Your task to perform on an android device: find which apps use the phone's location Image 0: 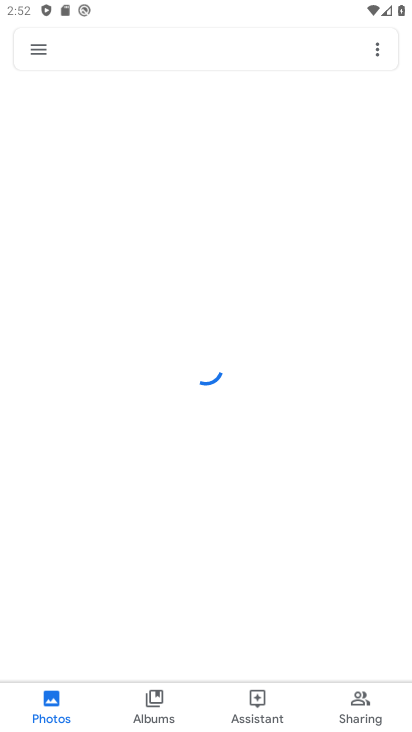
Step 0: press home button
Your task to perform on an android device: find which apps use the phone's location Image 1: 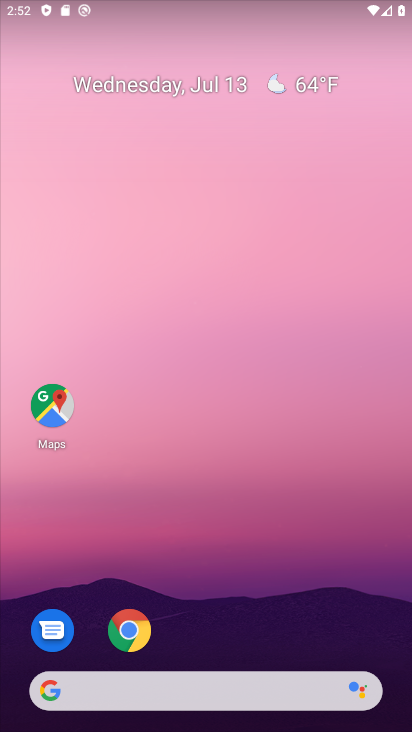
Step 1: drag from (280, 579) to (279, 201)
Your task to perform on an android device: find which apps use the phone's location Image 2: 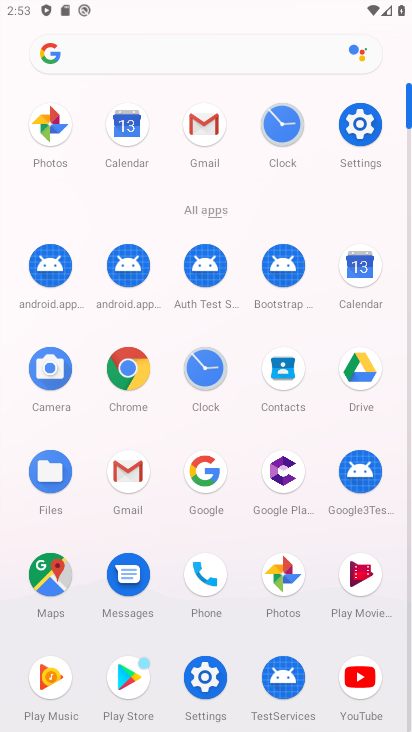
Step 2: click (361, 108)
Your task to perform on an android device: find which apps use the phone's location Image 3: 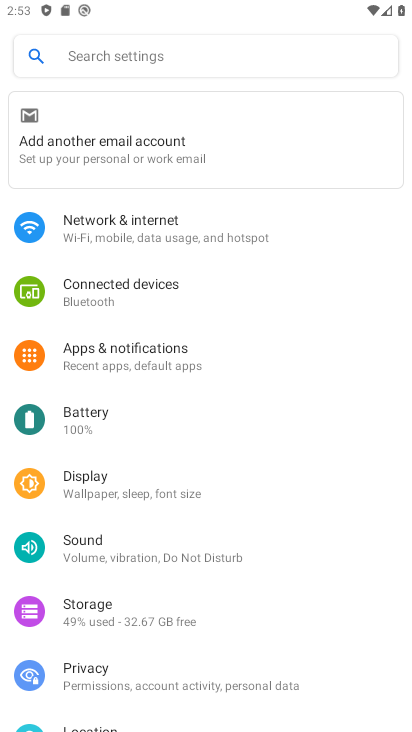
Step 3: click (123, 724)
Your task to perform on an android device: find which apps use the phone's location Image 4: 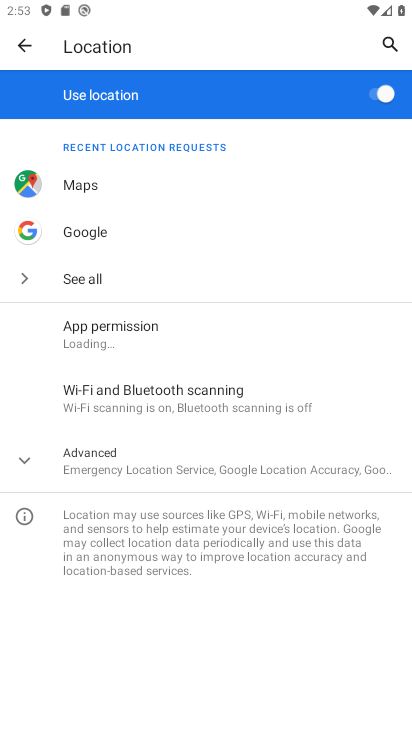
Step 4: click (186, 475)
Your task to perform on an android device: find which apps use the phone's location Image 5: 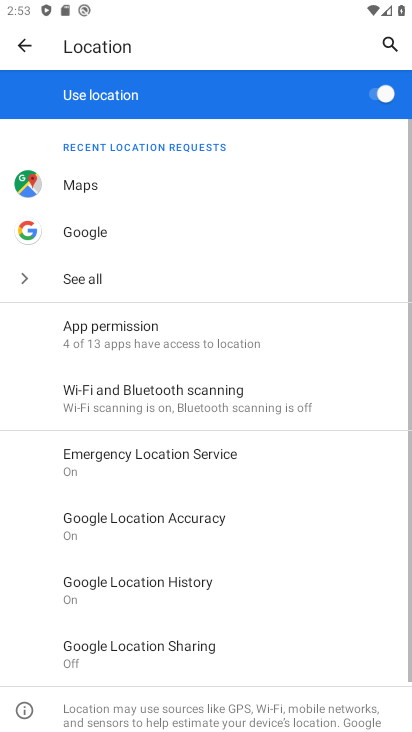
Step 5: click (173, 330)
Your task to perform on an android device: find which apps use the phone's location Image 6: 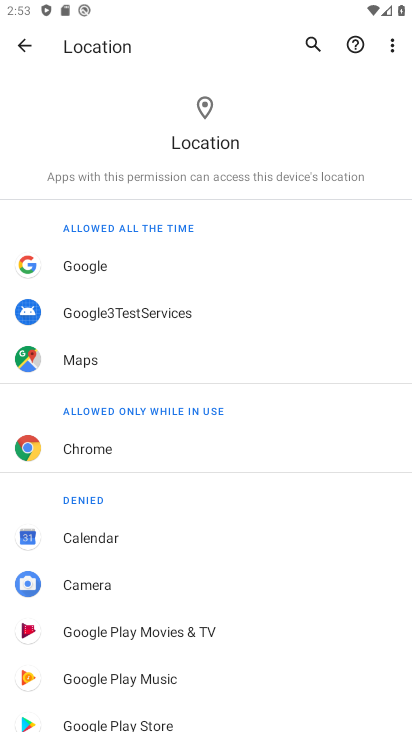
Step 6: task complete